Your task to perform on an android device: Go to battery settings Image 0: 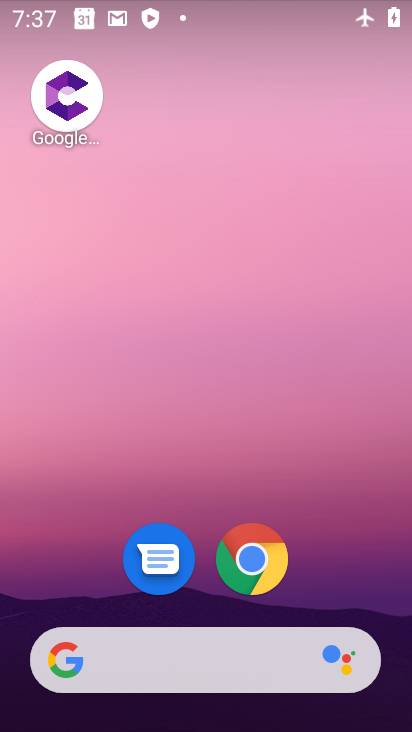
Step 0: drag from (327, 578) to (222, 142)
Your task to perform on an android device: Go to battery settings Image 1: 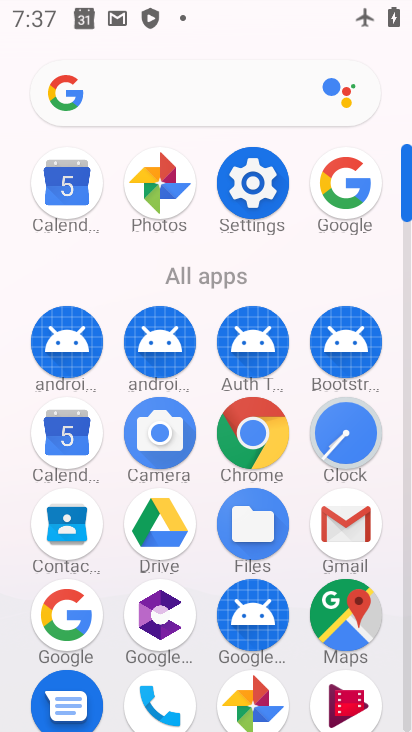
Step 1: click (252, 180)
Your task to perform on an android device: Go to battery settings Image 2: 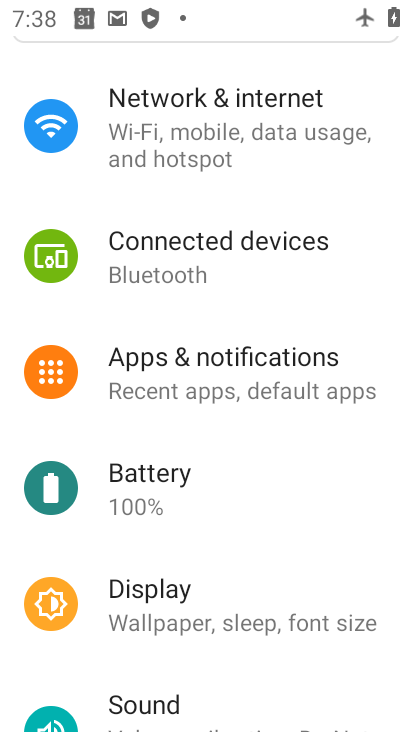
Step 2: click (170, 477)
Your task to perform on an android device: Go to battery settings Image 3: 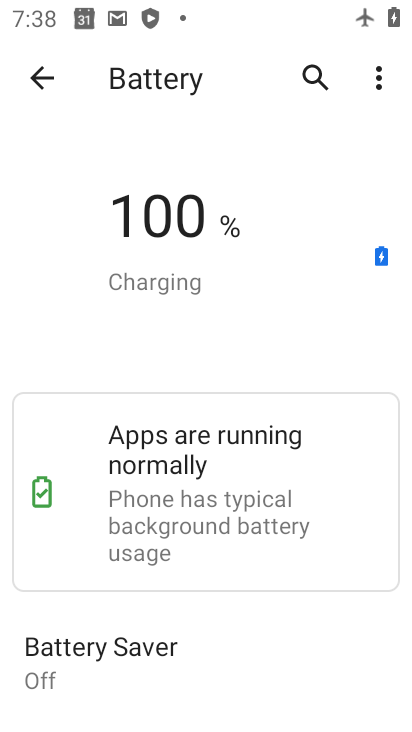
Step 3: task complete